Your task to perform on an android device: turn off translation in the chrome app Image 0: 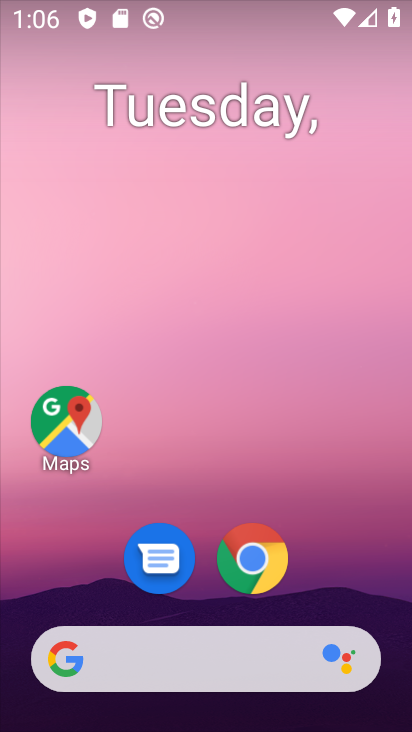
Step 0: click (247, 561)
Your task to perform on an android device: turn off translation in the chrome app Image 1: 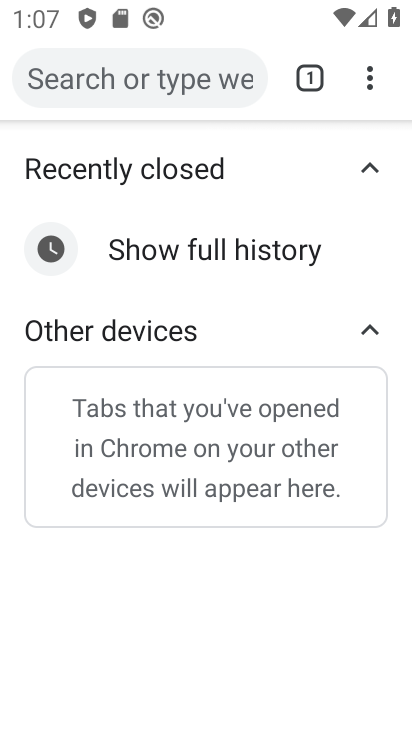
Step 1: press back button
Your task to perform on an android device: turn off translation in the chrome app Image 2: 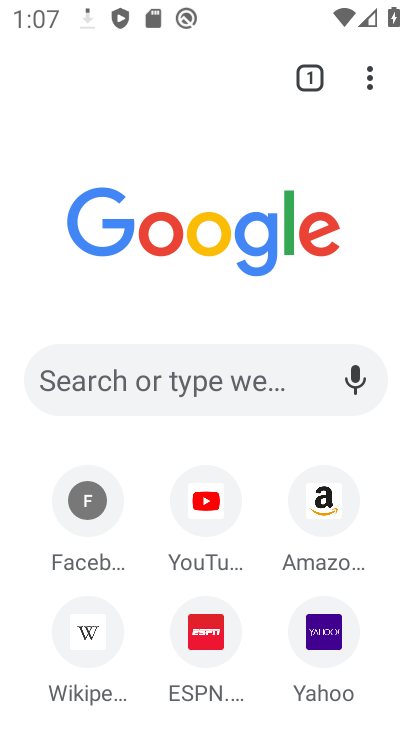
Step 2: press back button
Your task to perform on an android device: turn off translation in the chrome app Image 3: 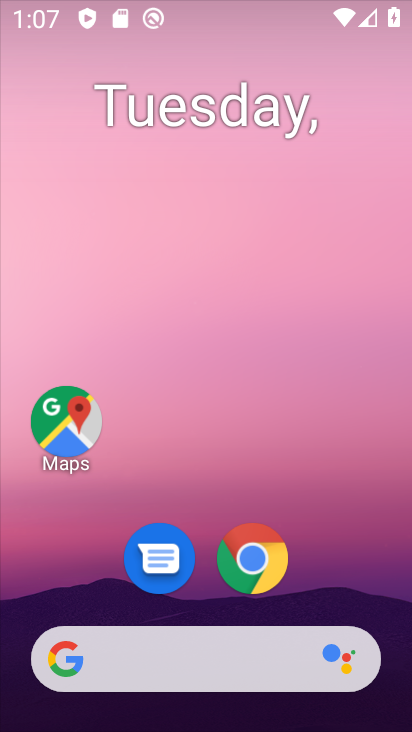
Step 3: click (240, 547)
Your task to perform on an android device: turn off translation in the chrome app Image 4: 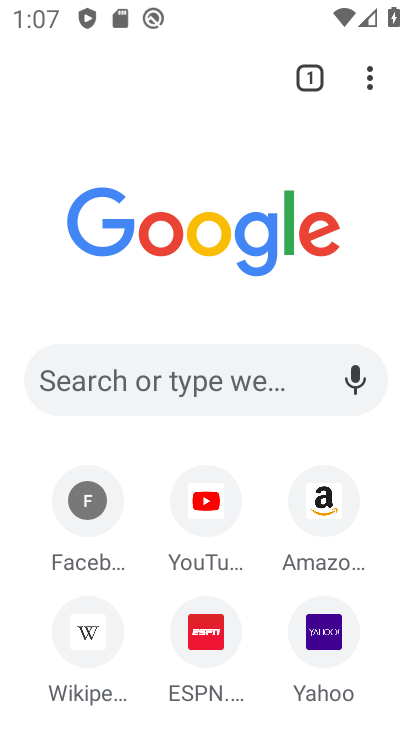
Step 4: drag from (377, 74) to (108, 609)
Your task to perform on an android device: turn off translation in the chrome app Image 5: 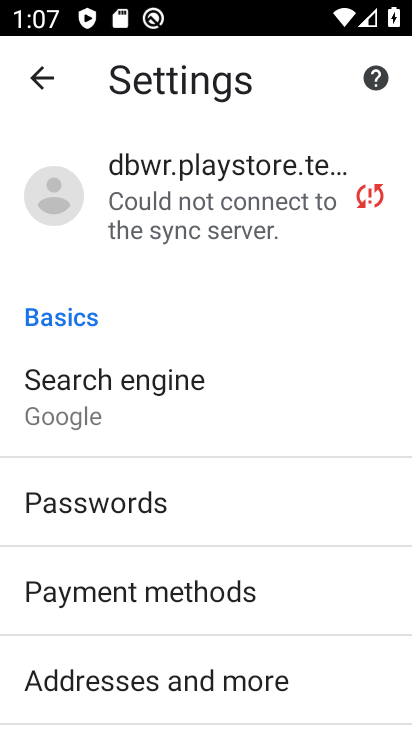
Step 5: drag from (131, 671) to (330, 183)
Your task to perform on an android device: turn off translation in the chrome app Image 6: 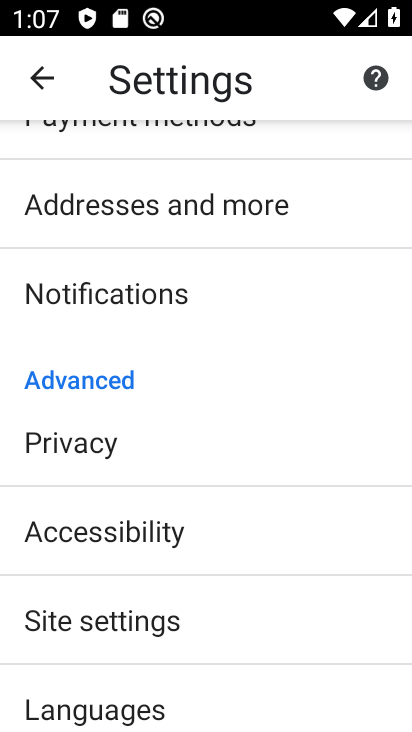
Step 6: click (124, 701)
Your task to perform on an android device: turn off translation in the chrome app Image 7: 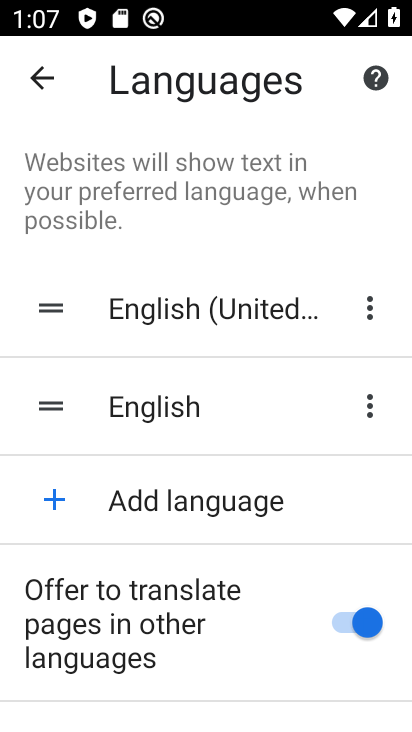
Step 7: click (361, 619)
Your task to perform on an android device: turn off translation in the chrome app Image 8: 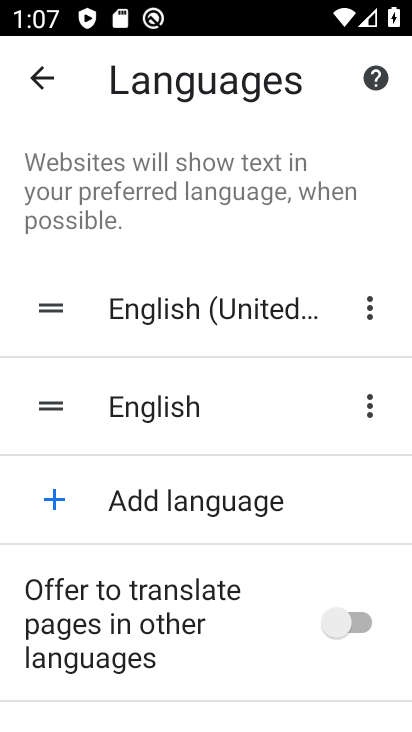
Step 8: task complete